Your task to perform on an android device: Open maps Image 0: 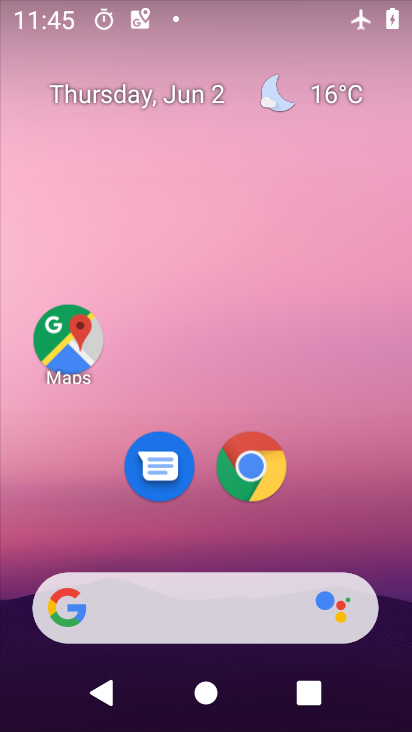
Step 0: click (71, 354)
Your task to perform on an android device: Open maps Image 1: 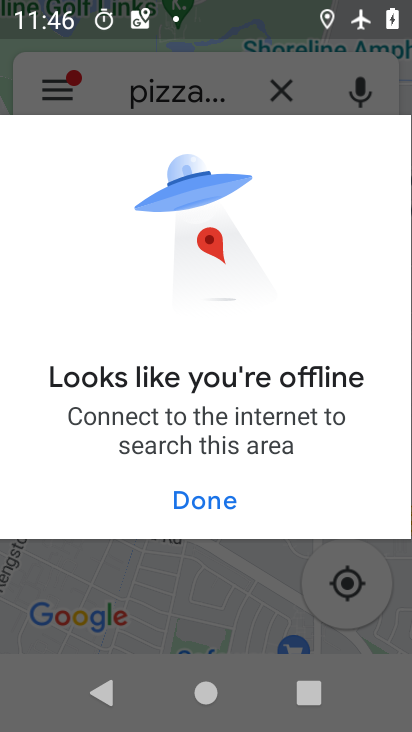
Step 1: task complete